Your task to perform on an android device: toggle data saver in the chrome app Image 0: 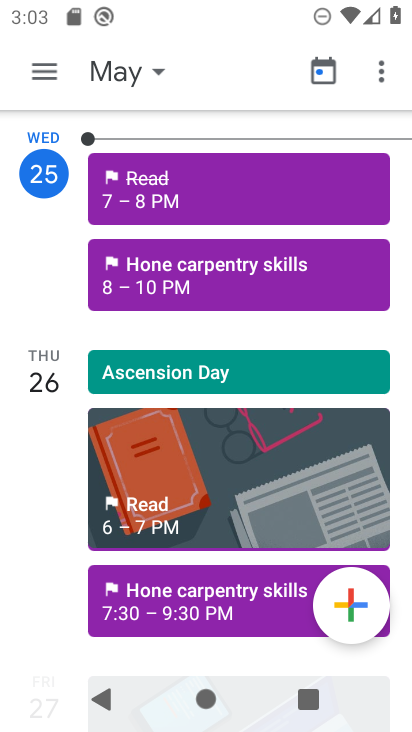
Step 0: press home button
Your task to perform on an android device: toggle data saver in the chrome app Image 1: 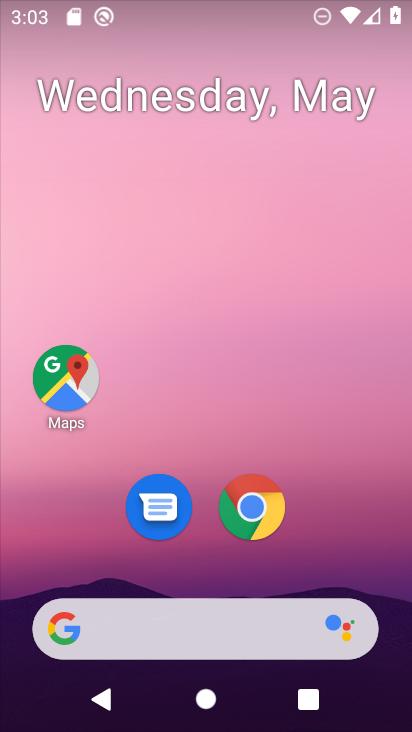
Step 1: click (249, 522)
Your task to perform on an android device: toggle data saver in the chrome app Image 2: 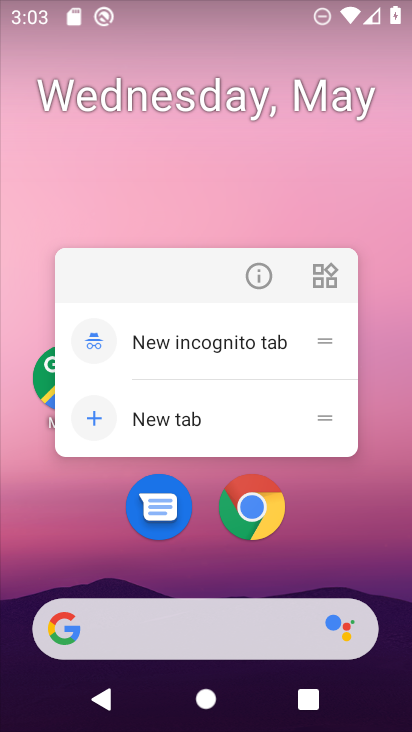
Step 2: click (254, 519)
Your task to perform on an android device: toggle data saver in the chrome app Image 3: 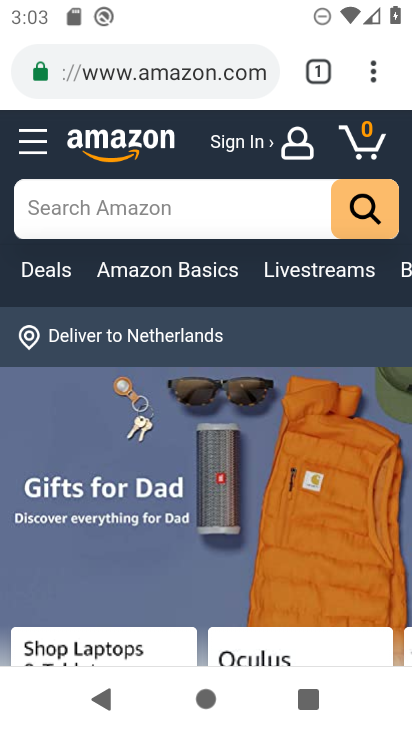
Step 3: click (375, 79)
Your task to perform on an android device: toggle data saver in the chrome app Image 4: 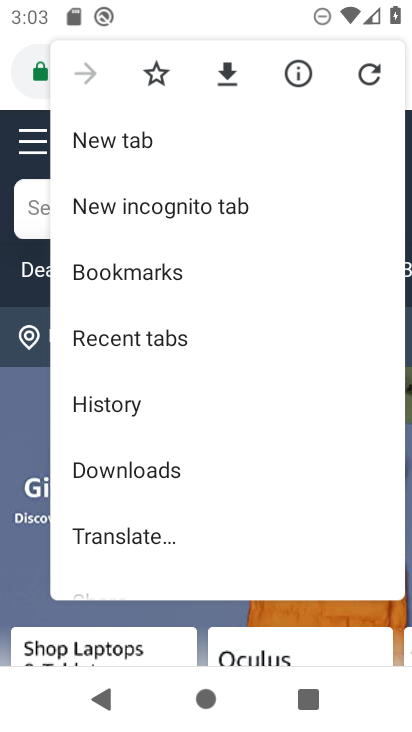
Step 4: drag from (160, 493) to (188, 308)
Your task to perform on an android device: toggle data saver in the chrome app Image 5: 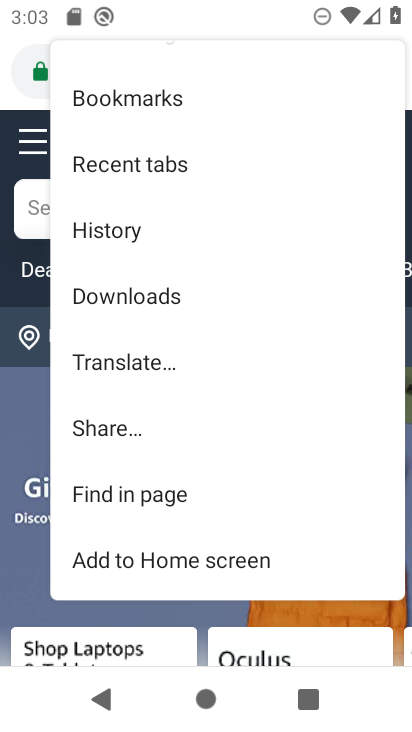
Step 5: drag from (121, 519) to (168, 251)
Your task to perform on an android device: toggle data saver in the chrome app Image 6: 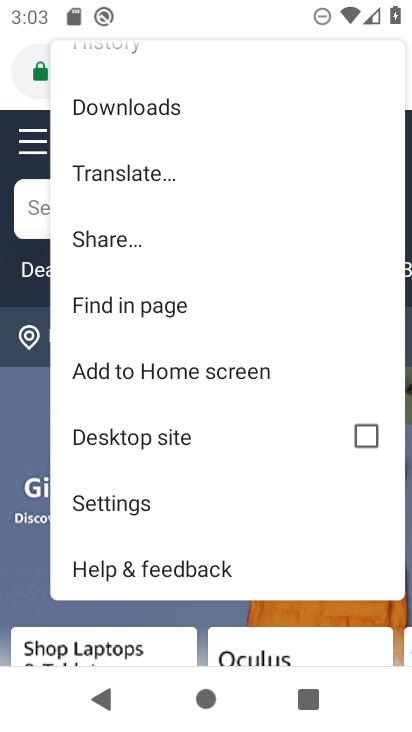
Step 6: click (132, 504)
Your task to perform on an android device: toggle data saver in the chrome app Image 7: 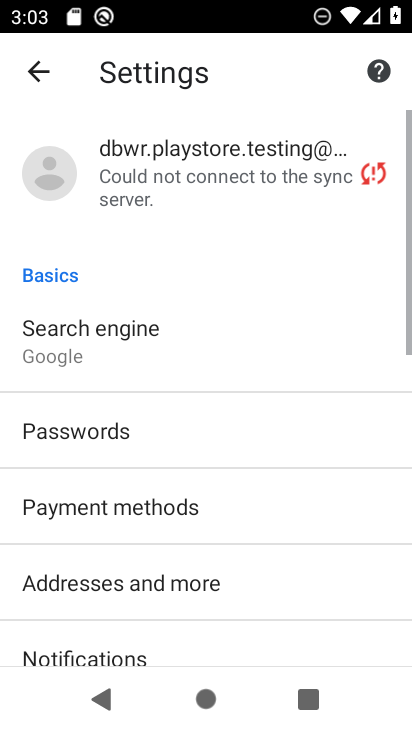
Step 7: drag from (121, 566) to (143, 347)
Your task to perform on an android device: toggle data saver in the chrome app Image 8: 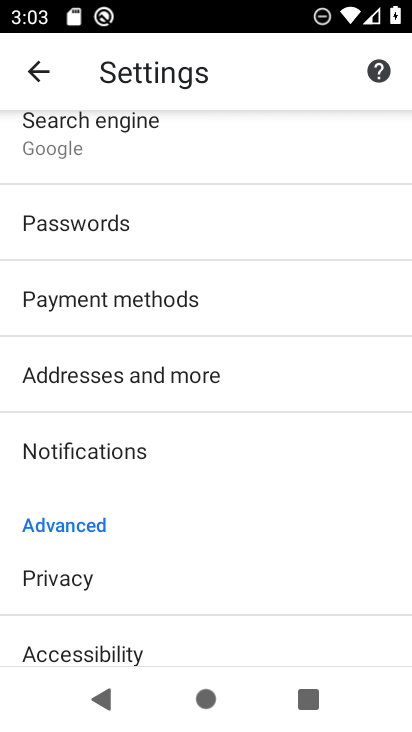
Step 8: drag from (119, 606) to (138, 364)
Your task to perform on an android device: toggle data saver in the chrome app Image 9: 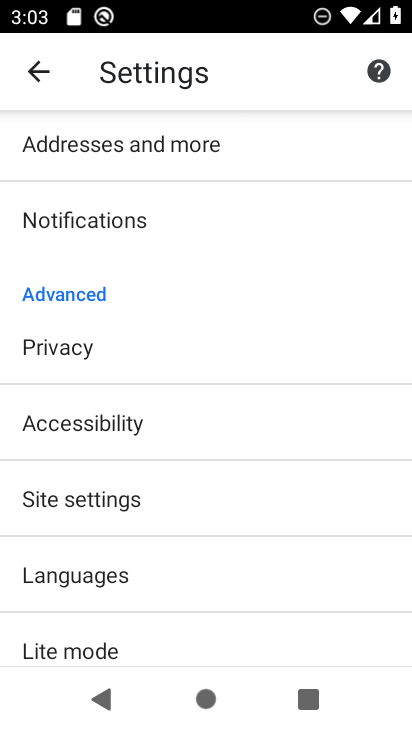
Step 9: drag from (126, 579) to (143, 443)
Your task to perform on an android device: toggle data saver in the chrome app Image 10: 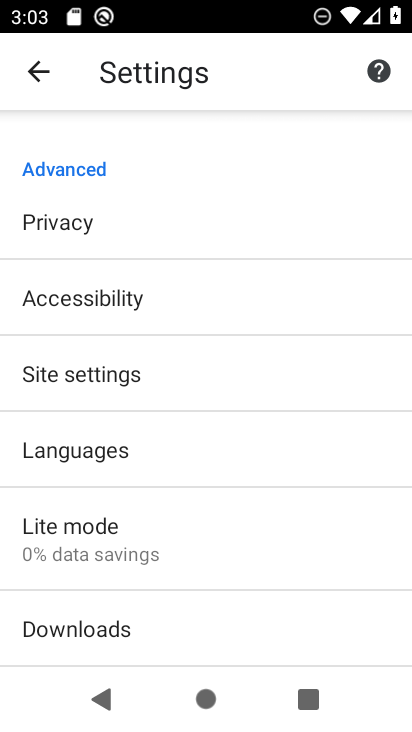
Step 10: click (102, 535)
Your task to perform on an android device: toggle data saver in the chrome app Image 11: 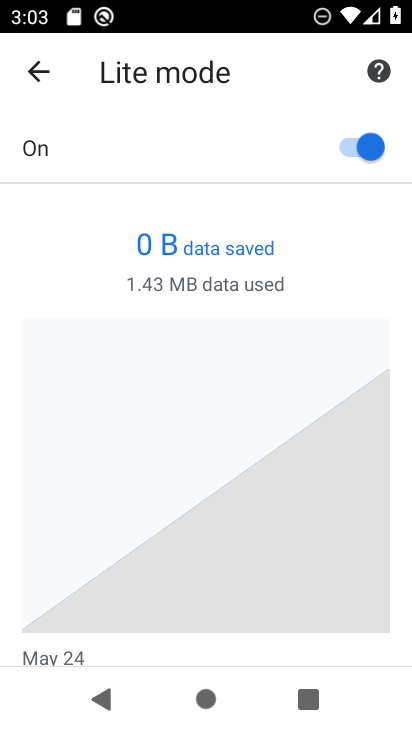
Step 11: click (318, 159)
Your task to perform on an android device: toggle data saver in the chrome app Image 12: 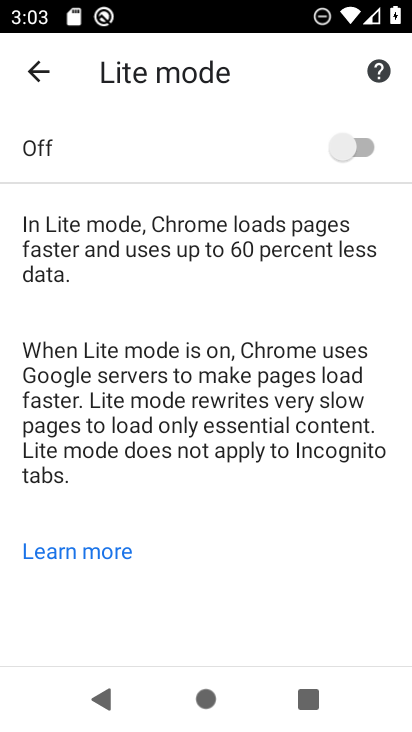
Step 12: task complete